Your task to perform on an android device: Go to internet settings Image 0: 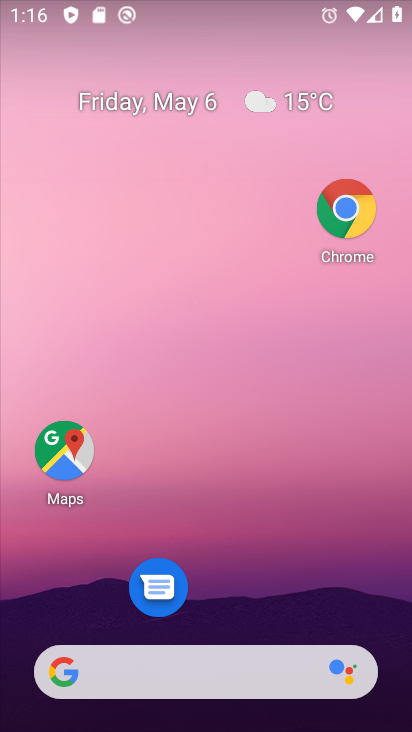
Step 0: drag from (259, 608) to (224, 13)
Your task to perform on an android device: Go to internet settings Image 1: 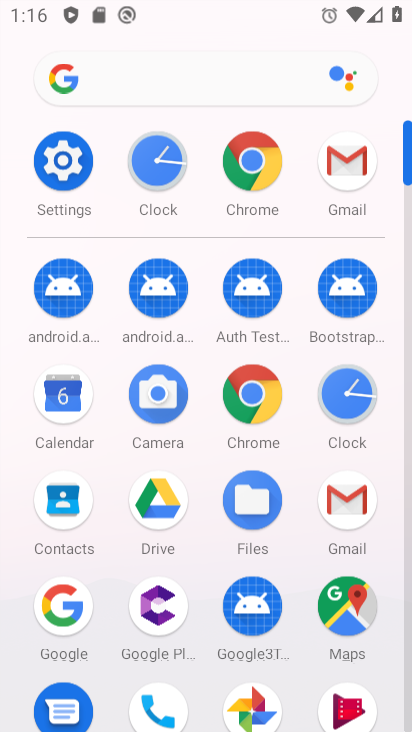
Step 1: click (71, 169)
Your task to perform on an android device: Go to internet settings Image 2: 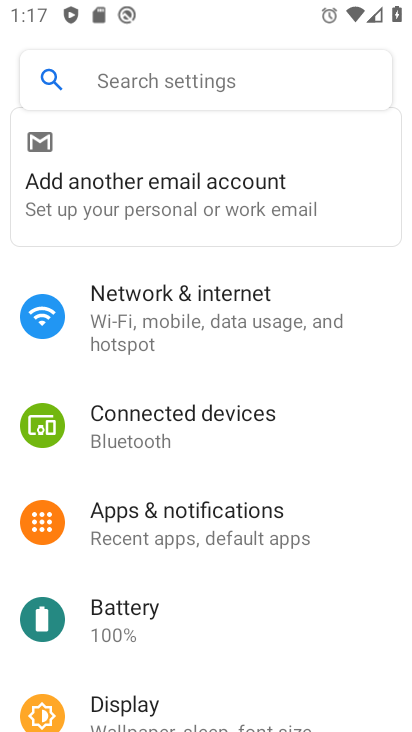
Step 2: click (170, 318)
Your task to perform on an android device: Go to internet settings Image 3: 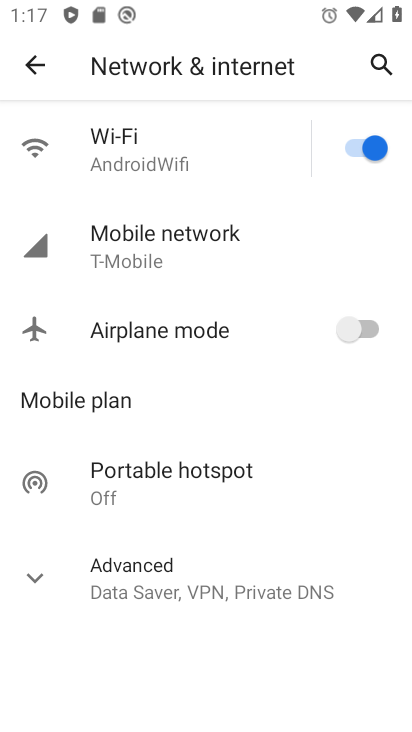
Step 3: task complete